Your task to perform on an android device: change notification settings in the gmail app Image 0: 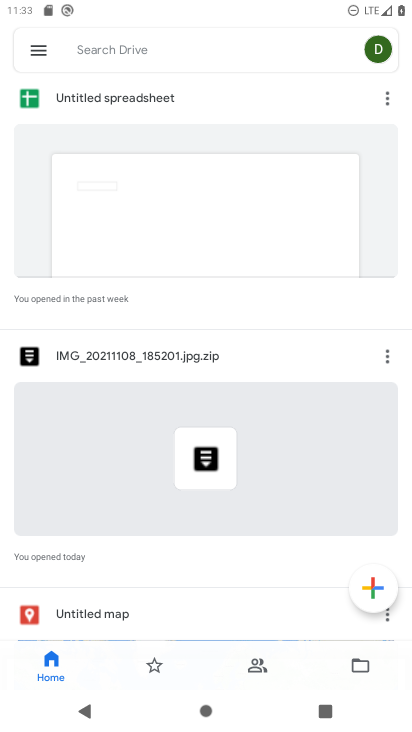
Step 0: press home button
Your task to perform on an android device: change notification settings in the gmail app Image 1: 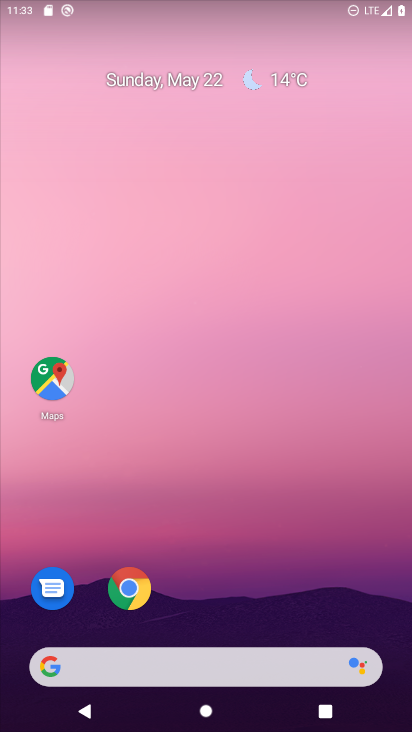
Step 1: drag from (241, 603) to (244, 254)
Your task to perform on an android device: change notification settings in the gmail app Image 2: 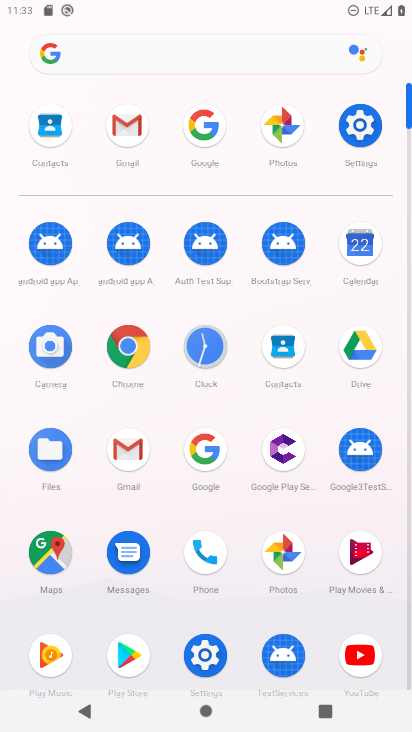
Step 2: click (138, 119)
Your task to perform on an android device: change notification settings in the gmail app Image 3: 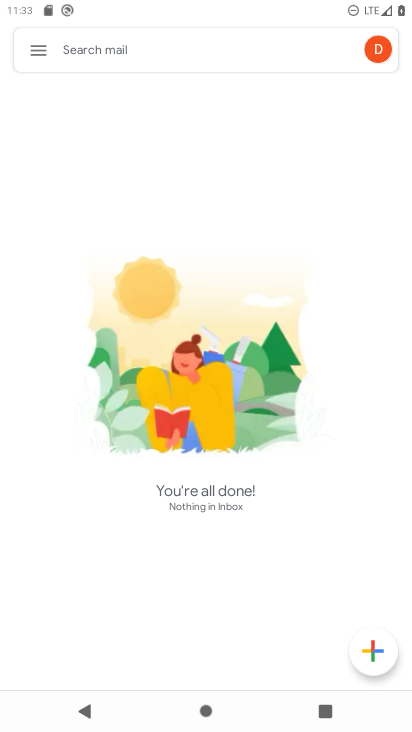
Step 3: click (39, 47)
Your task to perform on an android device: change notification settings in the gmail app Image 4: 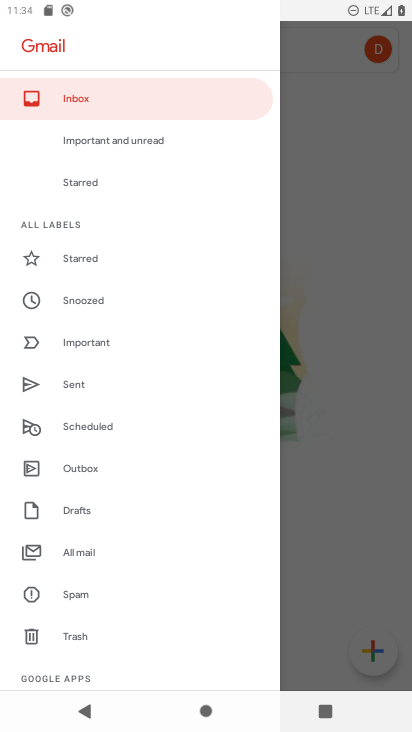
Step 4: drag from (136, 603) to (151, 371)
Your task to perform on an android device: change notification settings in the gmail app Image 5: 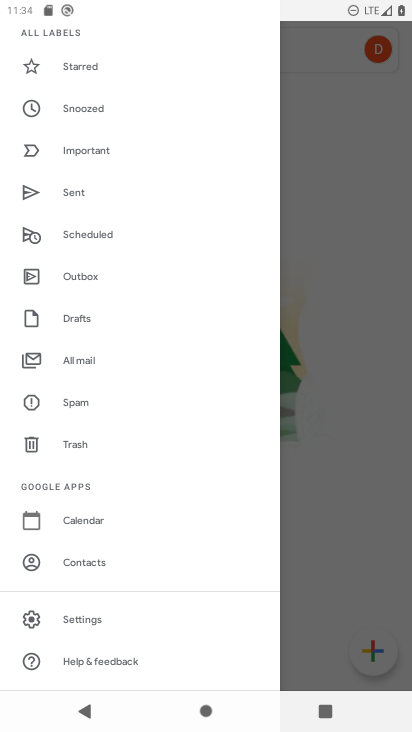
Step 5: click (95, 613)
Your task to perform on an android device: change notification settings in the gmail app Image 6: 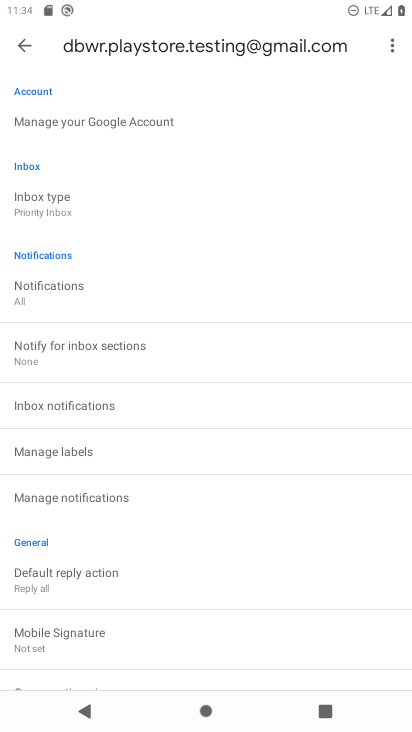
Step 6: click (116, 501)
Your task to perform on an android device: change notification settings in the gmail app Image 7: 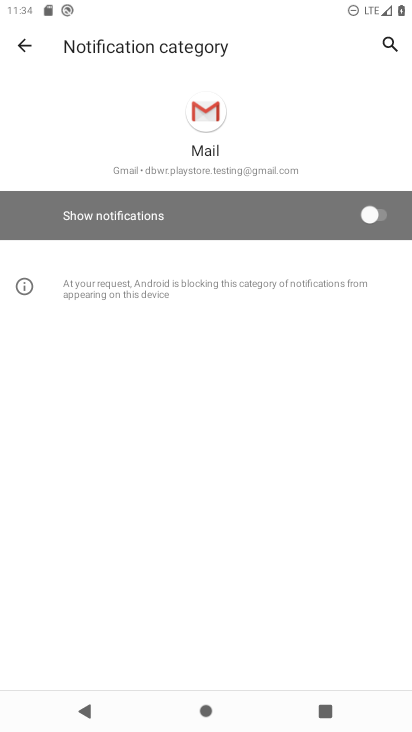
Step 7: click (379, 213)
Your task to perform on an android device: change notification settings in the gmail app Image 8: 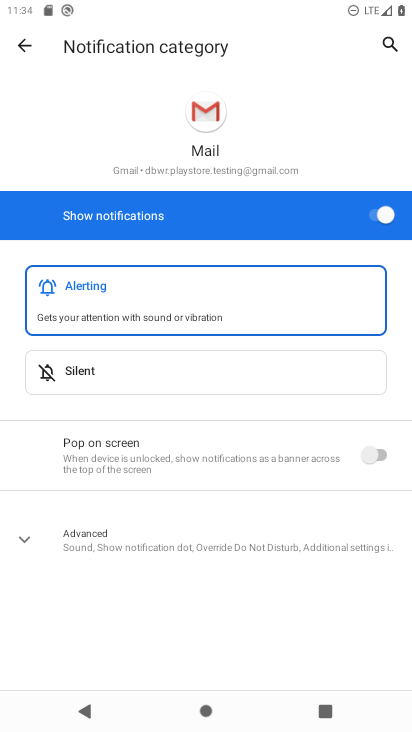
Step 8: task complete